Your task to perform on an android device: change timer sound Image 0: 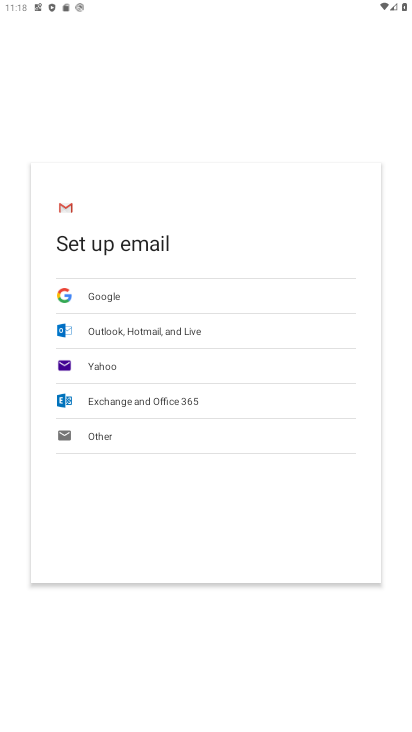
Step 0: press home button
Your task to perform on an android device: change timer sound Image 1: 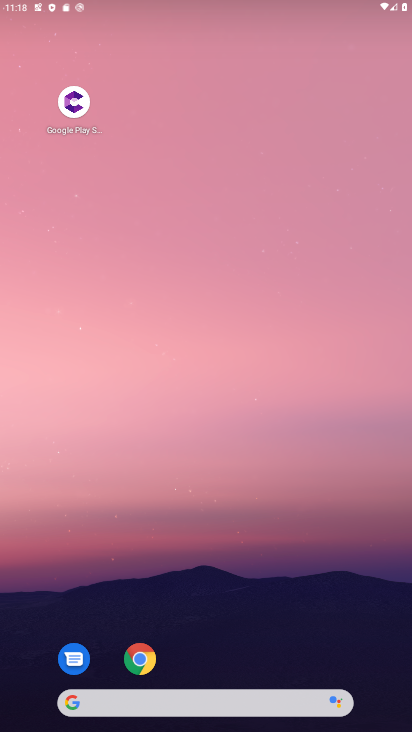
Step 1: drag from (209, 667) to (233, 141)
Your task to perform on an android device: change timer sound Image 2: 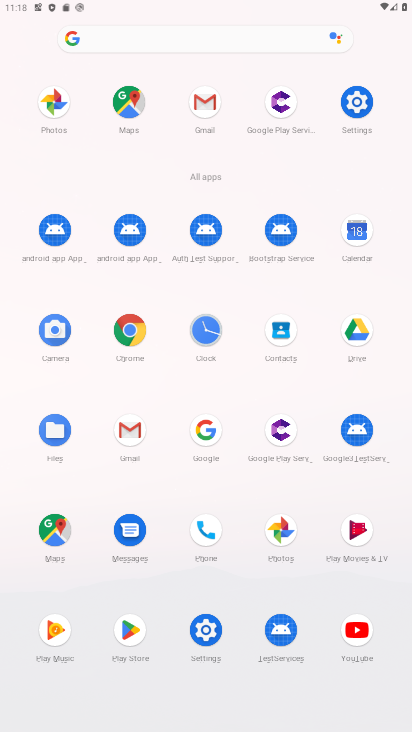
Step 2: click (206, 331)
Your task to perform on an android device: change timer sound Image 3: 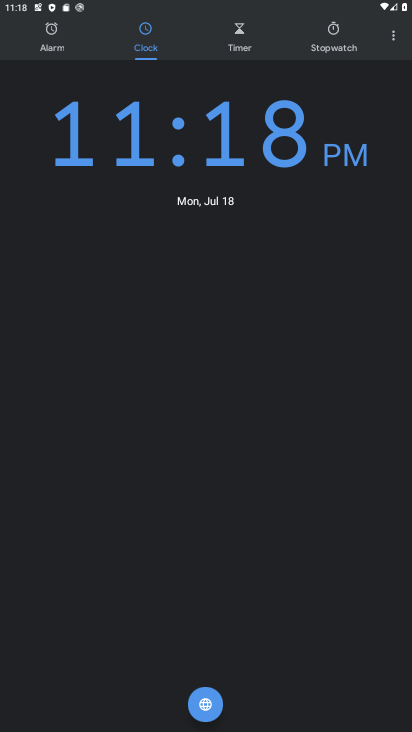
Step 3: click (392, 31)
Your task to perform on an android device: change timer sound Image 4: 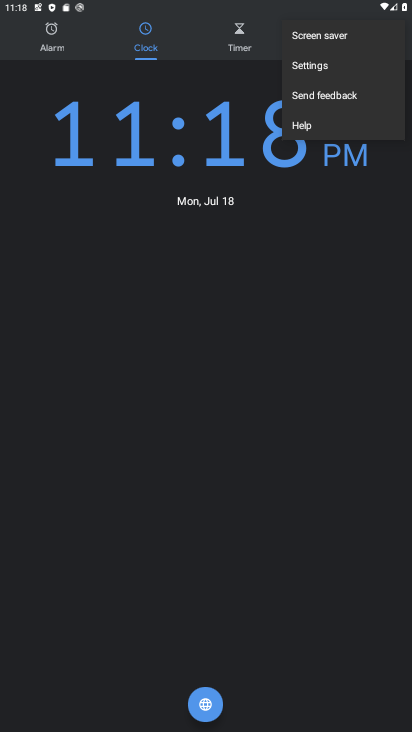
Step 4: click (322, 67)
Your task to perform on an android device: change timer sound Image 5: 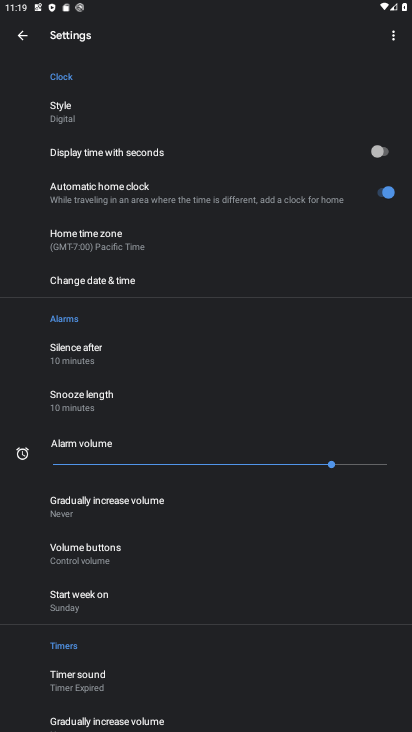
Step 5: click (117, 672)
Your task to perform on an android device: change timer sound Image 6: 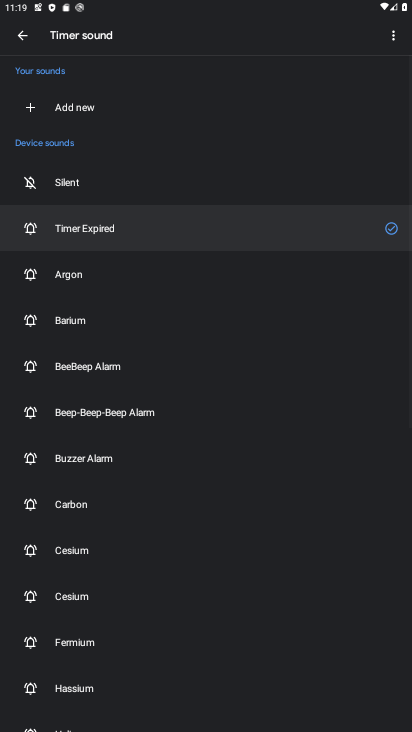
Step 6: click (75, 279)
Your task to perform on an android device: change timer sound Image 7: 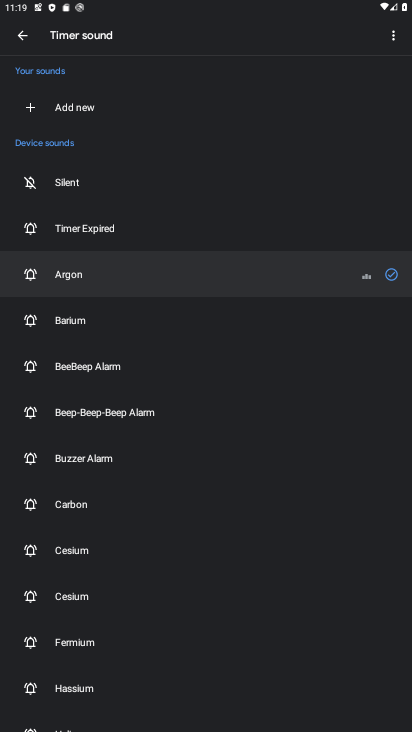
Step 7: task complete